Your task to perform on an android device: open app "Life360: Find Family & Friends" (install if not already installed) and enter user name: "gusts@gmail.com" and password: "assurers" Image 0: 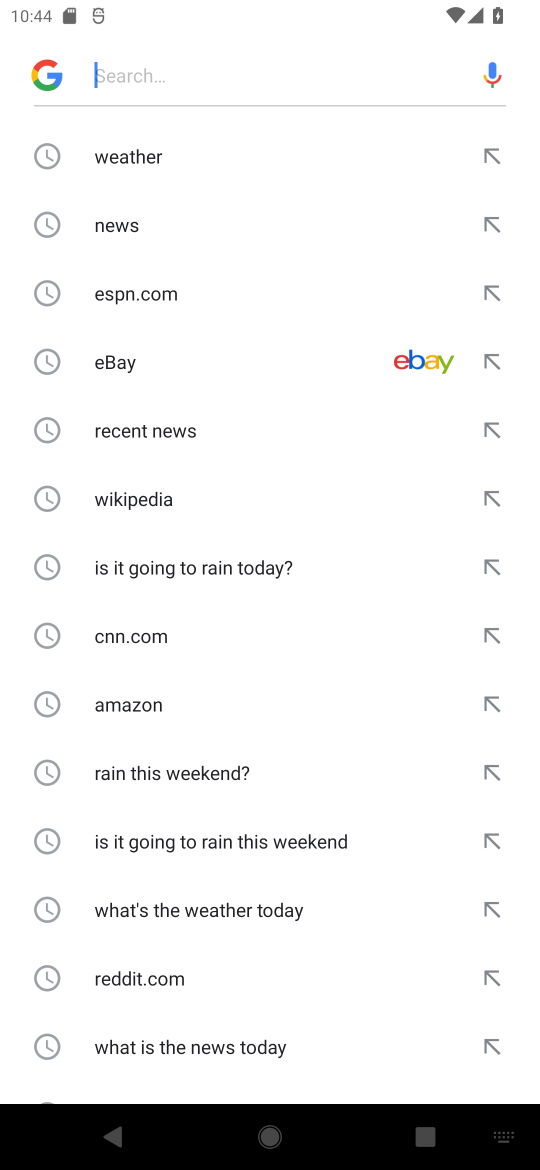
Step 0: press home button
Your task to perform on an android device: open app "Life360: Find Family & Friends" (install if not already installed) and enter user name: "gusts@gmail.com" and password: "assurers" Image 1: 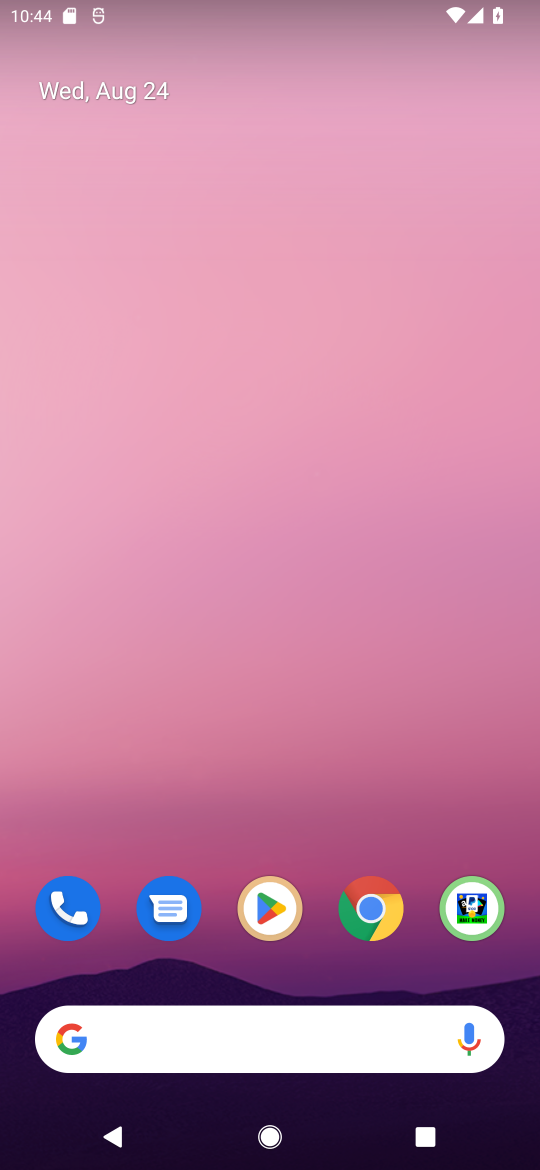
Step 1: click (258, 940)
Your task to perform on an android device: open app "Life360: Find Family & Friends" (install if not already installed) and enter user name: "gusts@gmail.com" and password: "assurers" Image 2: 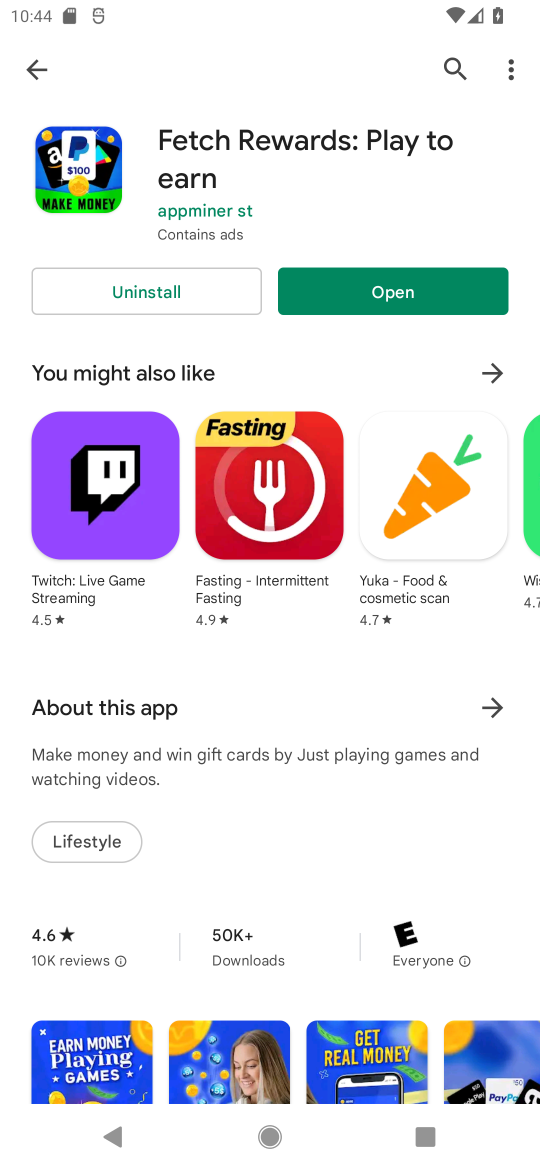
Step 2: click (30, 60)
Your task to perform on an android device: open app "Life360: Find Family & Friends" (install if not already installed) and enter user name: "gusts@gmail.com" and password: "assurers" Image 3: 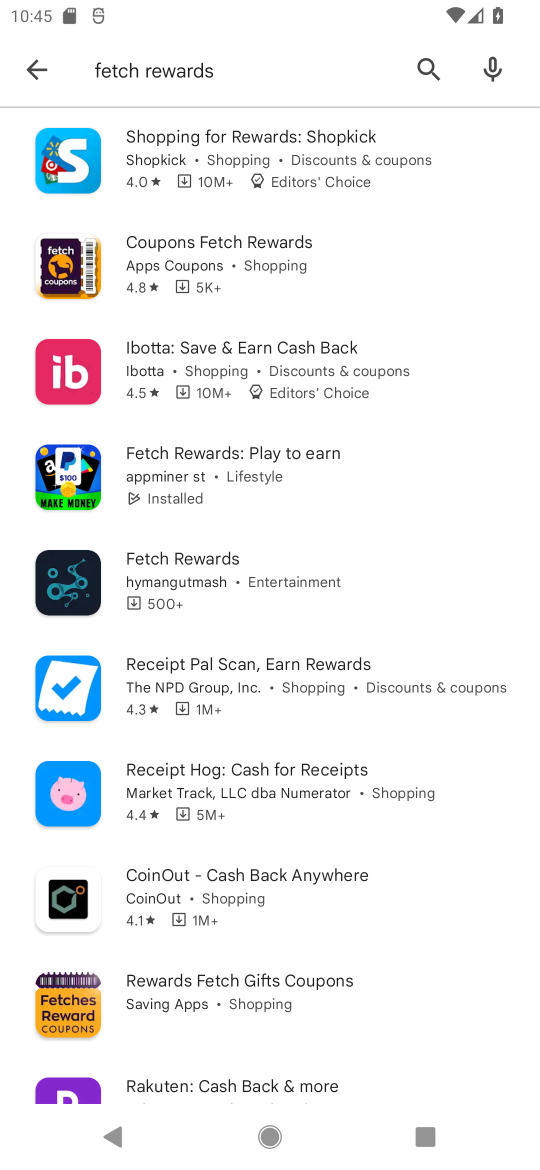
Step 3: click (56, 68)
Your task to perform on an android device: open app "Life360: Find Family & Friends" (install if not already installed) and enter user name: "gusts@gmail.com" and password: "assurers" Image 4: 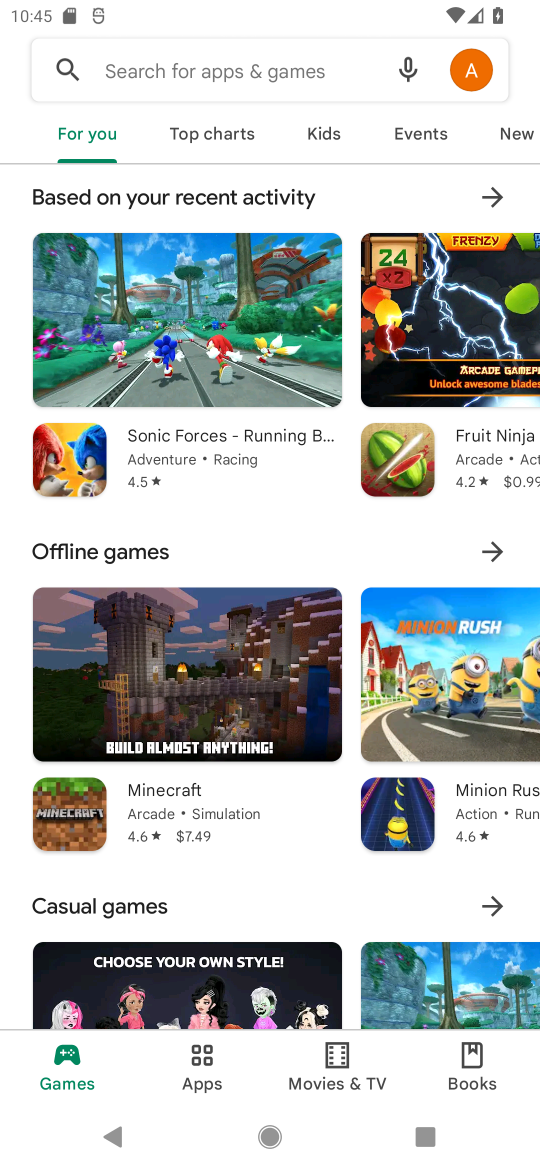
Step 4: click (124, 65)
Your task to perform on an android device: open app "Life360: Find Family & Friends" (install if not already installed) and enter user name: "gusts@gmail.com" and password: "assurers" Image 5: 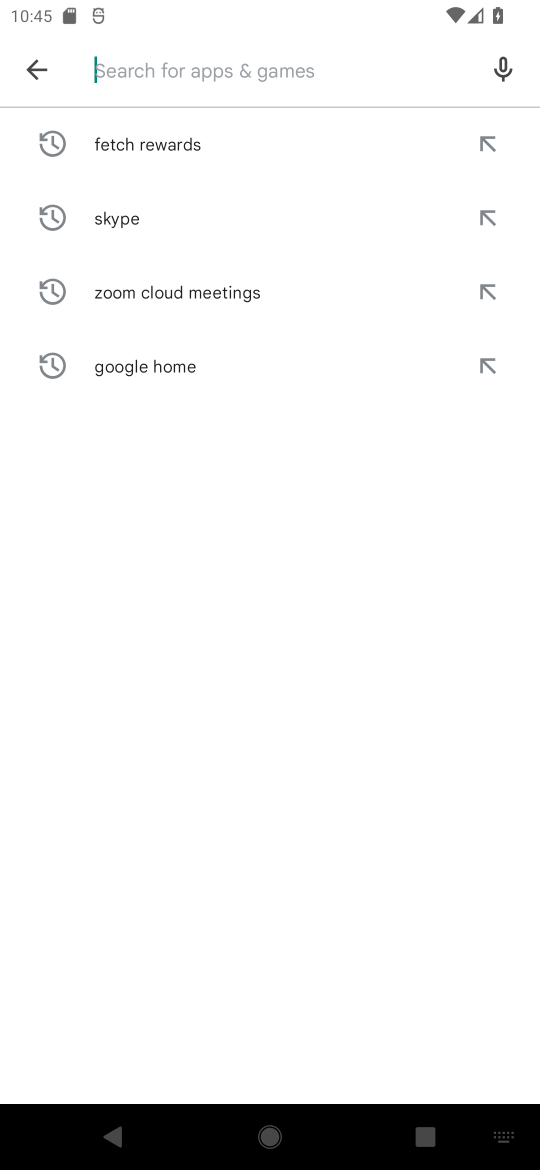
Step 5: type "Life360"
Your task to perform on an android device: open app "Life360: Find Family & Friends" (install if not already installed) and enter user name: "gusts@gmail.com" and password: "assurers" Image 6: 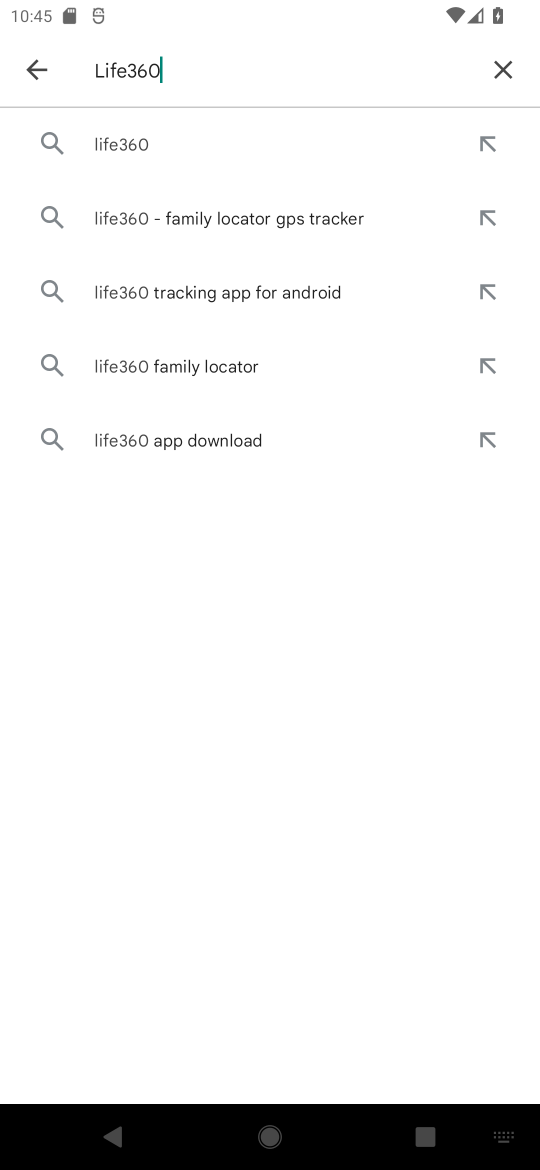
Step 6: click (159, 125)
Your task to perform on an android device: open app "Life360: Find Family & Friends" (install if not already installed) and enter user name: "gusts@gmail.com" and password: "assurers" Image 7: 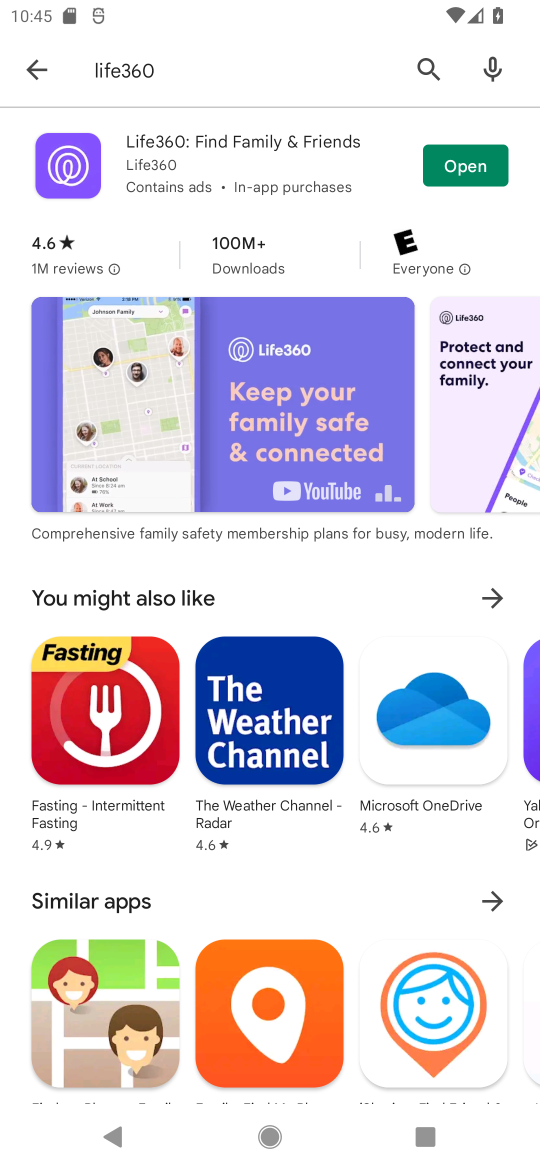
Step 7: click (486, 151)
Your task to perform on an android device: open app "Life360: Find Family & Friends" (install if not already installed) and enter user name: "gusts@gmail.com" and password: "assurers" Image 8: 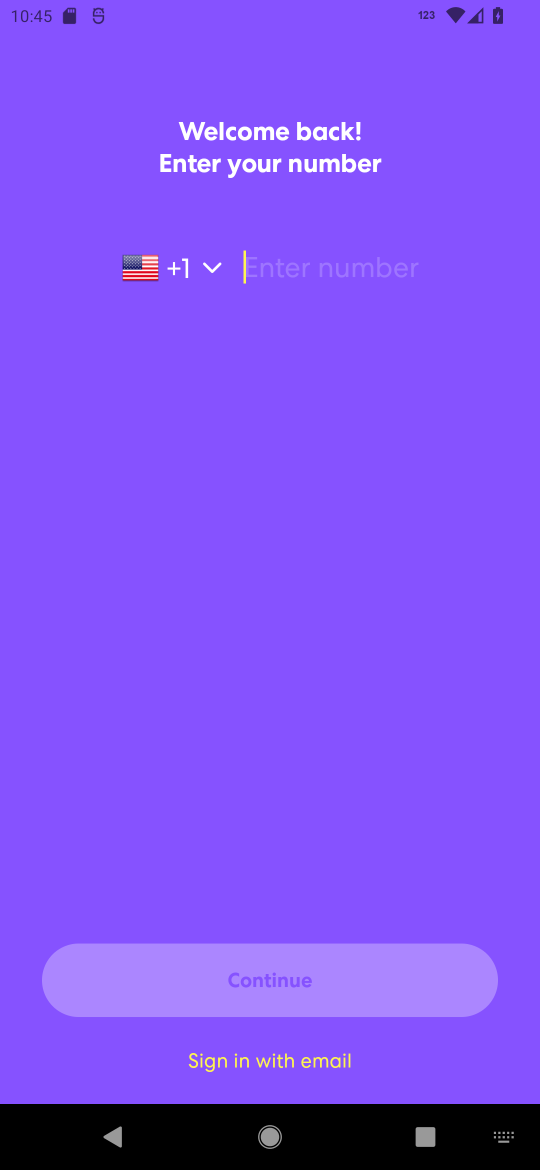
Step 8: click (194, 1073)
Your task to perform on an android device: open app "Life360: Find Family & Friends" (install if not already installed) and enter user name: "gusts@gmail.com" and password: "assurers" Image 9: 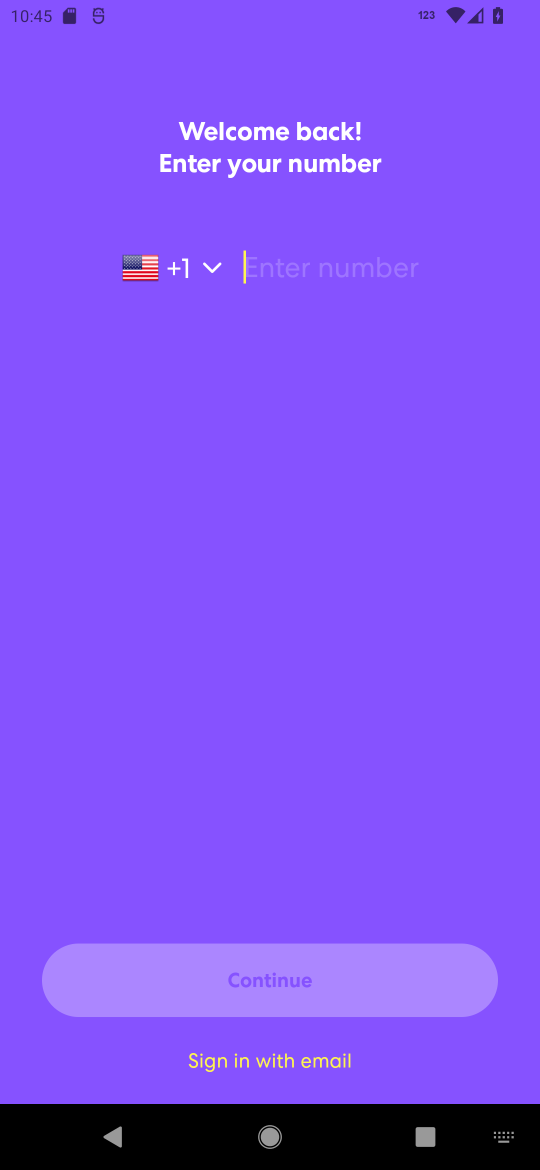
Step 9: click (194, 1073)
Your task to perform on an android device: open app "Life360: Find Family & Friends" (install if not already installed) and enter user name: "gusts@gmail.com" and password: "assurers" Image 10: 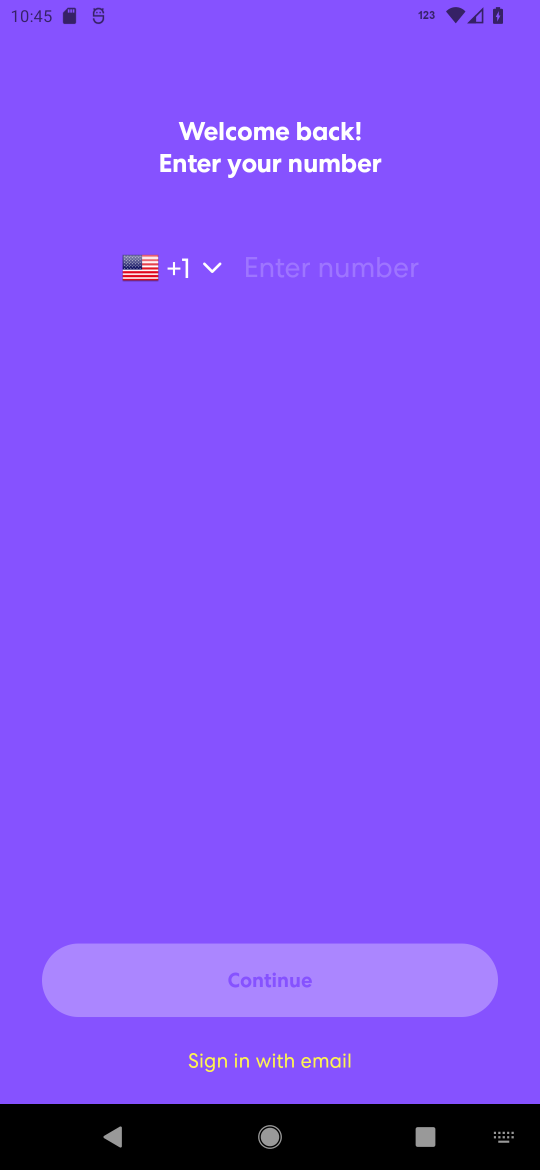
Step 10: click (207, 1062)
Your task to perform on an android device: open app "Life360: Find Family & Friends" (install if not already installed) and enter user name: "gusts@gmail.com" and password: "assurers" Image 11: 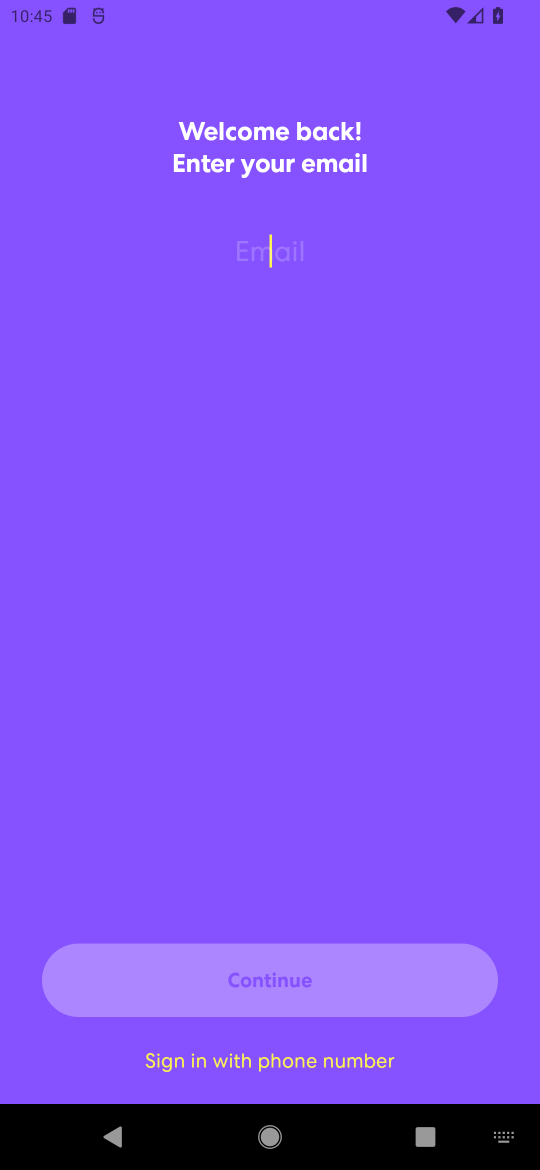
Step 11: task complete